Your task to perform on an android device: check data usage Image 0: 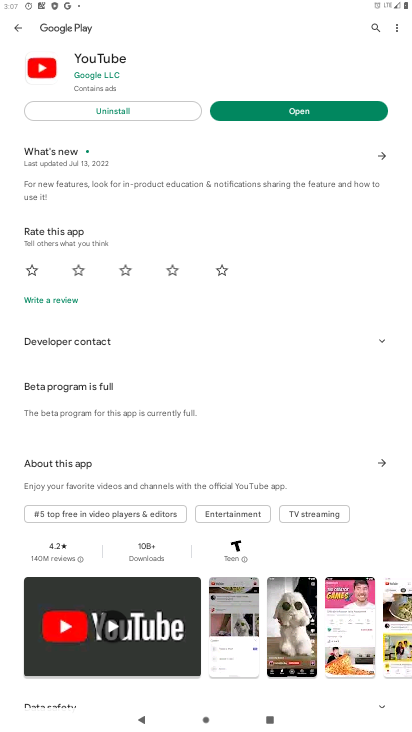
Step 0: press home button
Your task to perform on an android device: check data usage Image 1: 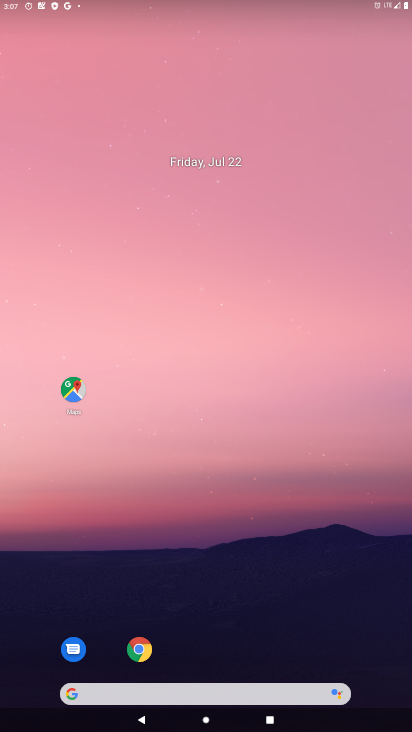
Step 1: drag from (305, 604) to (256, 2)
Your task to perform on an android device: check data usage Image 2: 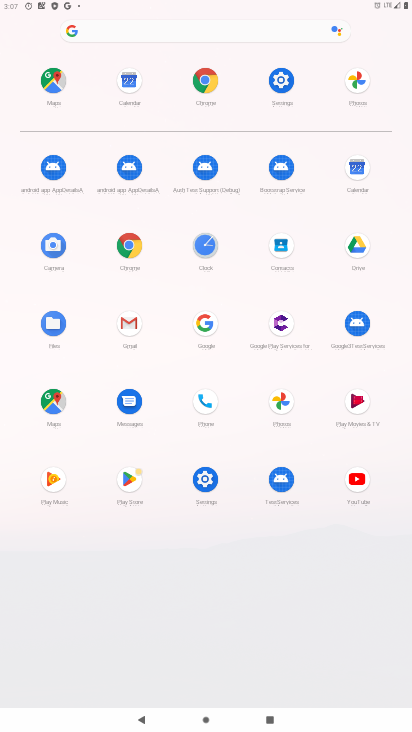
Step 2: click (274, 87)
Your task to perform on an android device: check data usage Image 3: 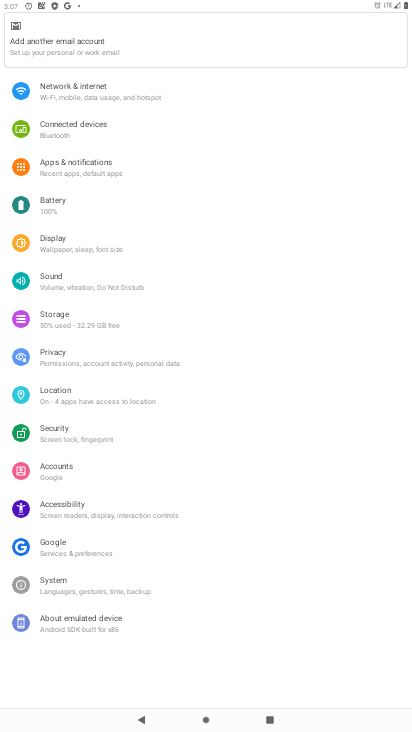
Step 3: click (106, 95)
Your task to perform on an android device: check data usage Image 4: 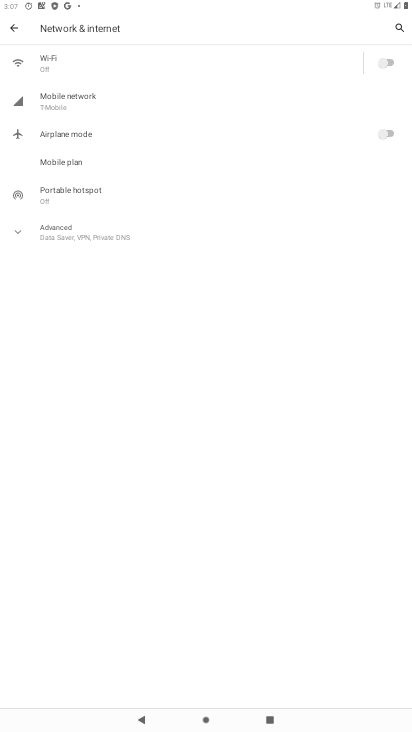
Step 4: click (68, 100)
Your task to perform on an android device: check data usage Image 5: 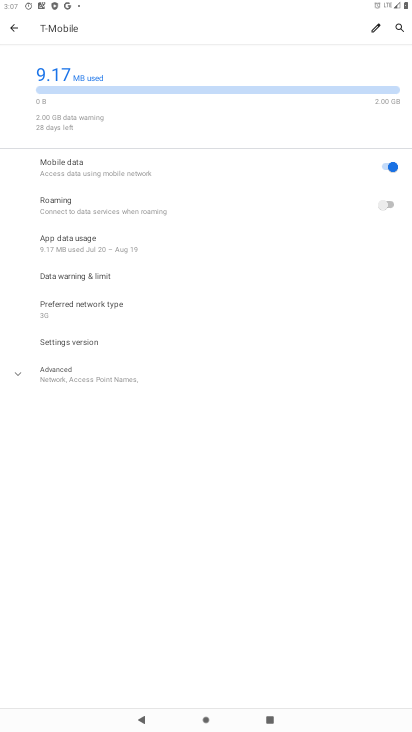
Step 5: task complete